Your task to perform on an android device: Go to location settings Image 0: 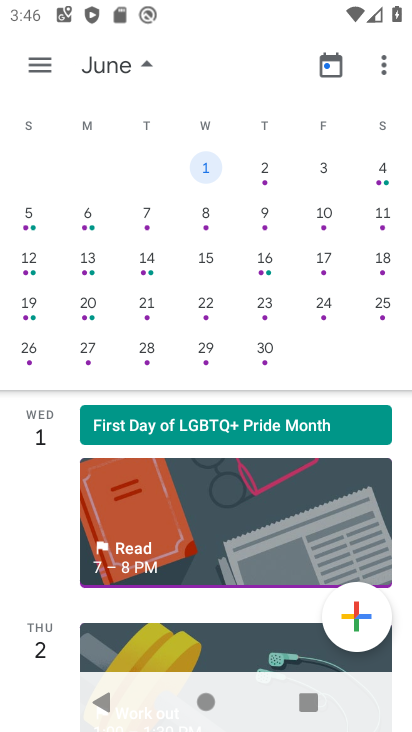
Step 0: press back button
Your task to perform on an android device: Go to location settings Image 1: 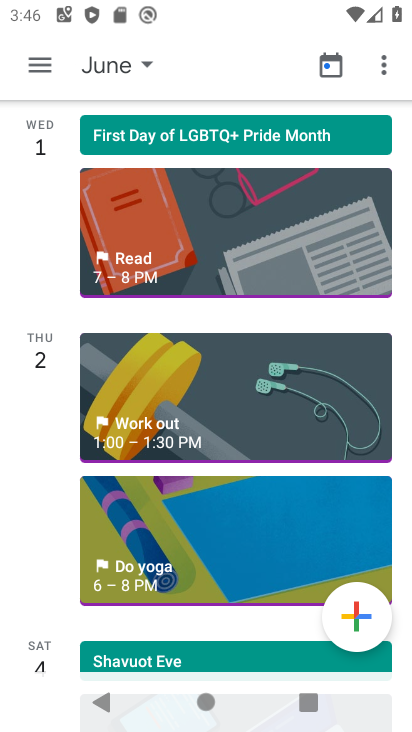
Step 1: press home button
Your task to perform on an android device: Go to location settings Image 2: 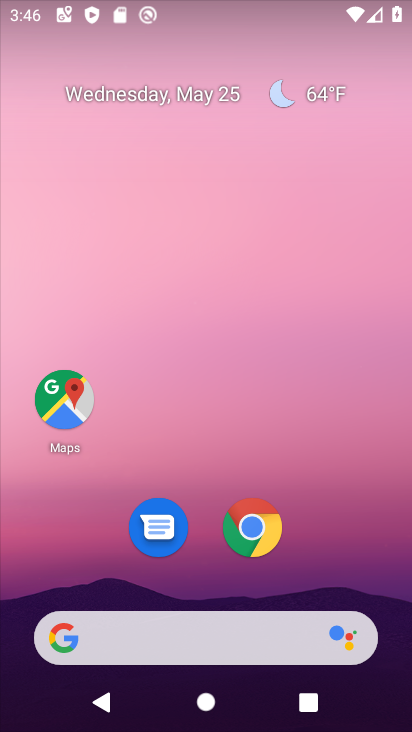
Step 2: drag from (176, 556) to (198, 102)
Your task to perform on an android device: Go to location settings Image 3: 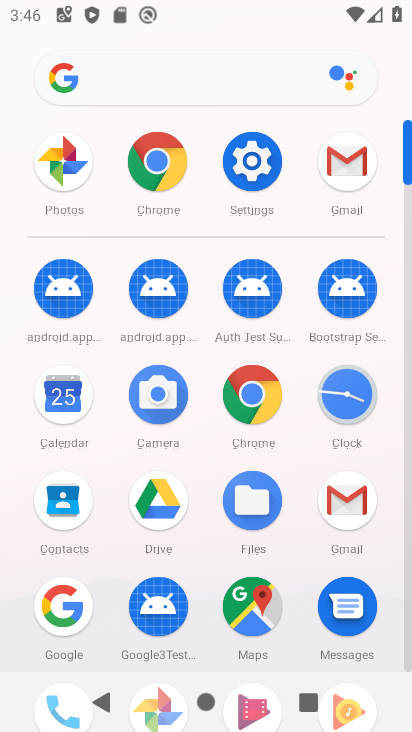
Step 3: click (254, 173)
Your task to perform on an android device: Go to location settings Image 4: 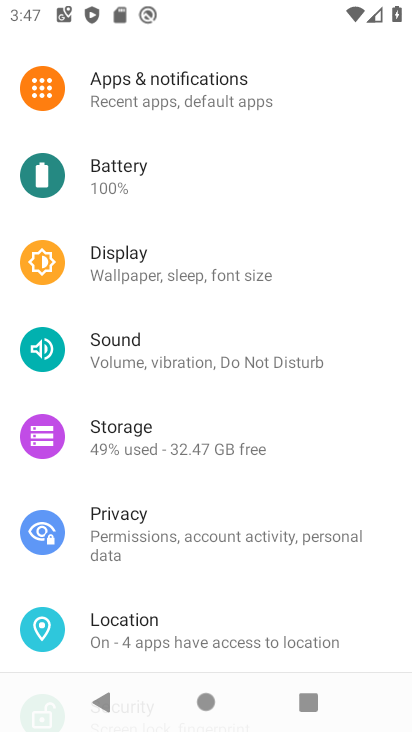
Step 4: click (111, 621)
Your task to perform on an android device: Go to location settings Image 5: 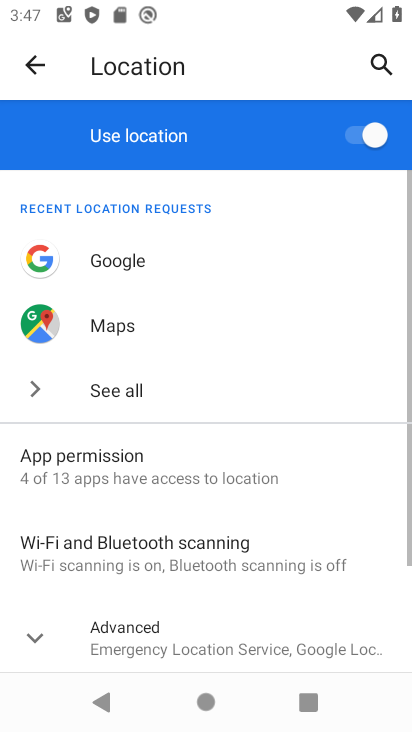
Step 5: task complete